Your task to perform on an android device: Search for Mexican restaurants on Maps Image 0: 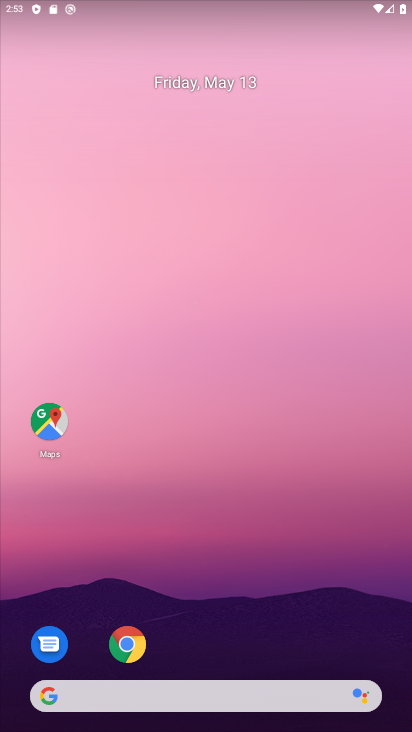
Step 0: click (56, 428)
Your task to perform on an android device: Search for Mexican restaurants on Maps Image 1: 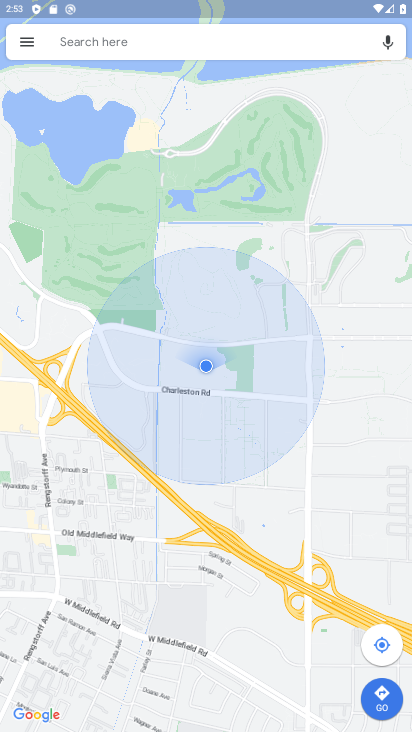
Step 1: click (161, 43)
Your task to perform on an android device: Search for Mexican restaurants on Maps Image 2: 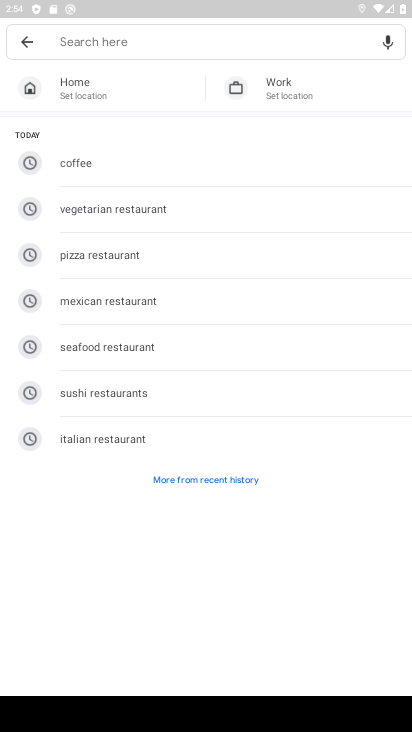
Step 2: click (123, 308)
Your task to perform on an android device: Search for Mexican restaurants on Maps Image 3: 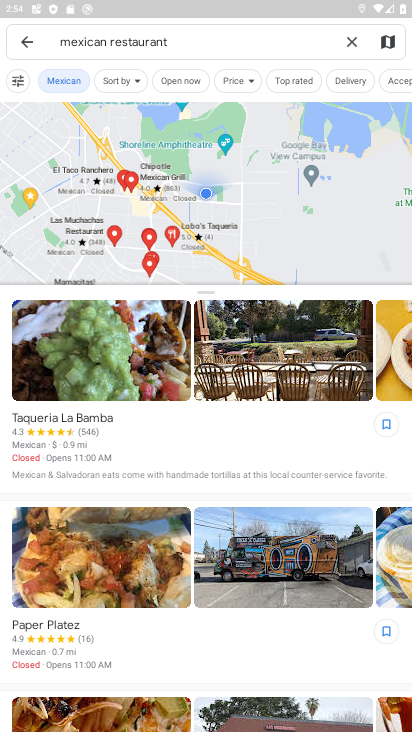
Step 3: task complete